Your task to perform on an android device: What is the recent news? Image 0: 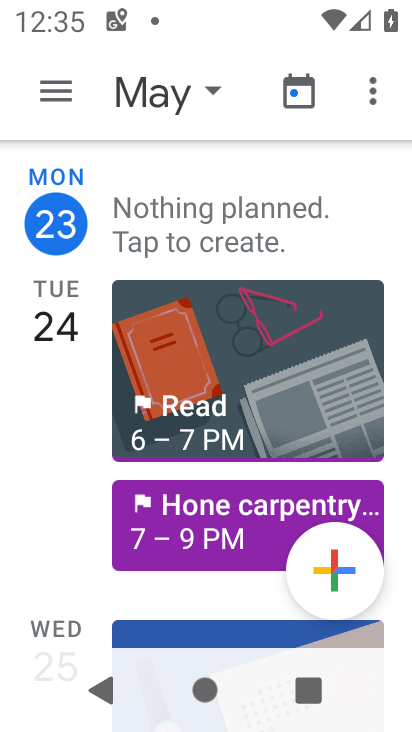
Step 0: press back button
Your task to perform on an android device: What is the recent news? Image 1: 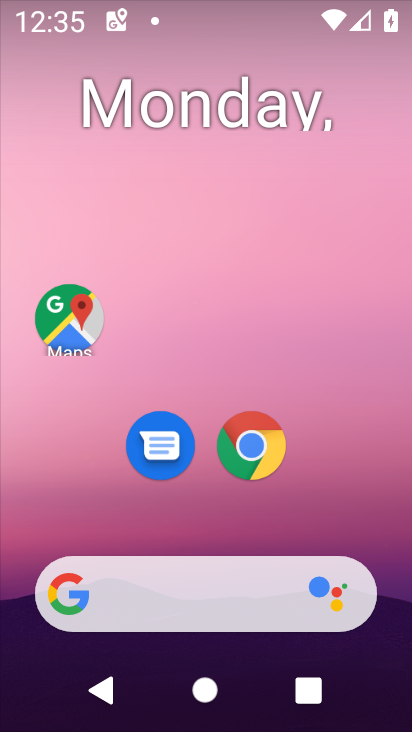
Step 1: drag from (319, 493) to (245, 41)
Your task to perform on an android device: What is the recent news? Image 2: 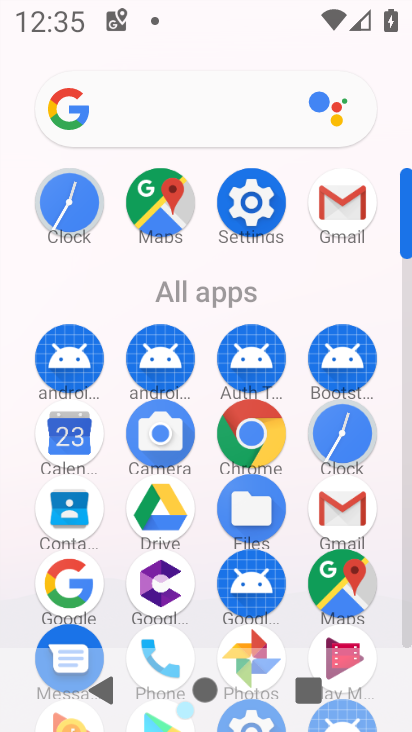
Step 2: drag from (194, 566) to (206, 359)
Your task to perform on an android device: What is the recent news? Image 3: 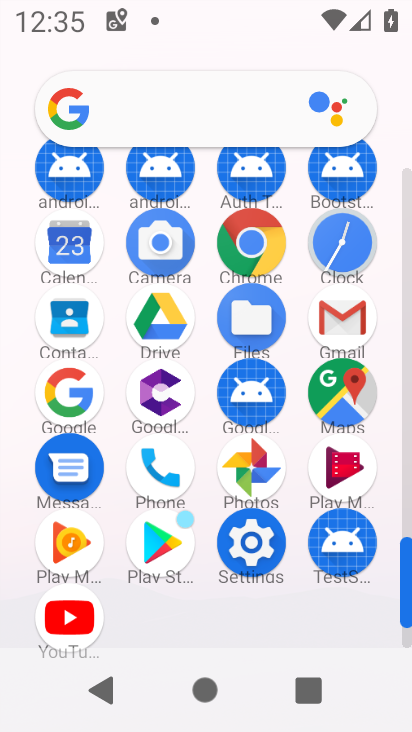
Step 3: click (62, 392)
Your task to perform on an android device: What is the recent news? Image 4: 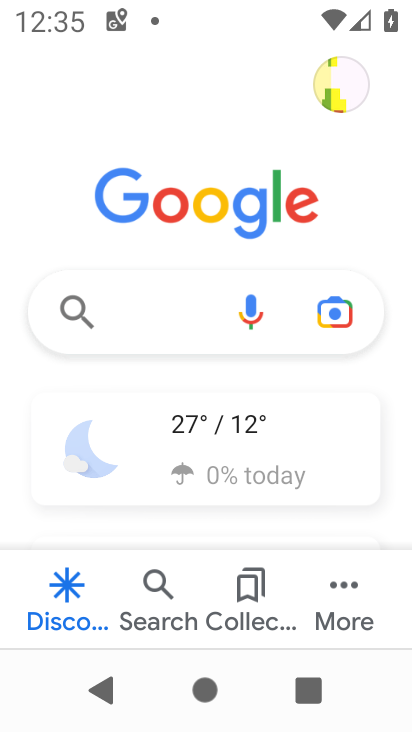
Step 4: click (139, 306)
Your task to perform on an android device: What is the recent news? Image 5: 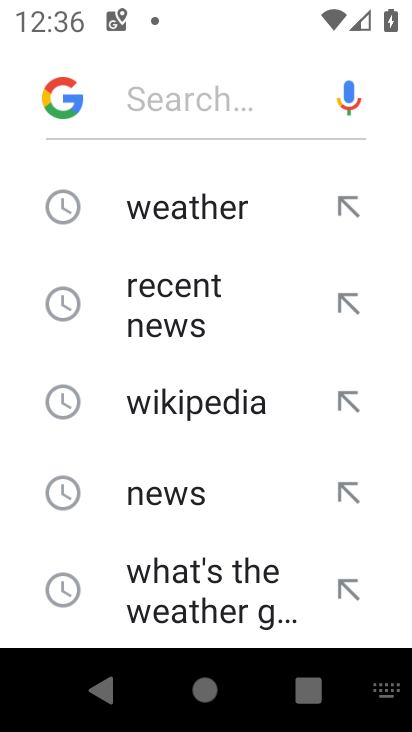
Step 5: type "recent news"
Your task to perform on an android device: What is the recent news? Image 6: 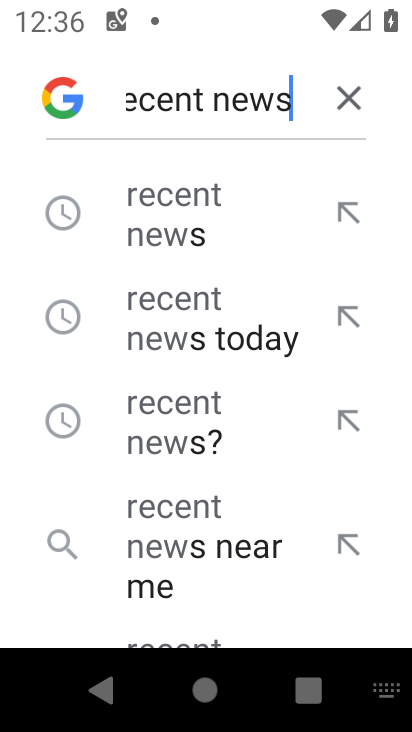
Step 6: type ""
Your task to perform on an android device: What is the recent news? Image 7: 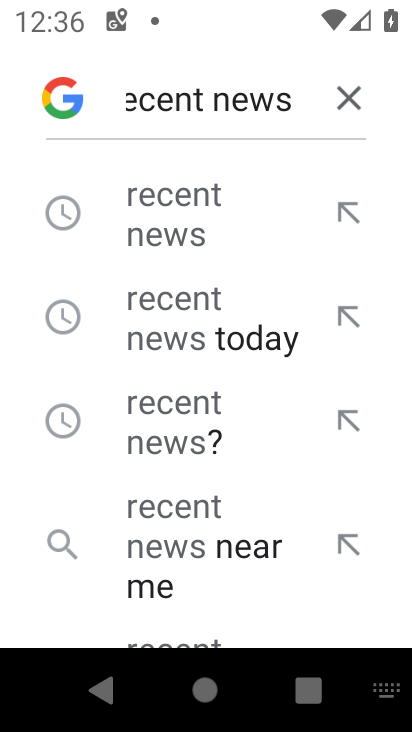
Step 7: click (190, 234)
Your task to perform on an android device: What is the recent news? Image 8: 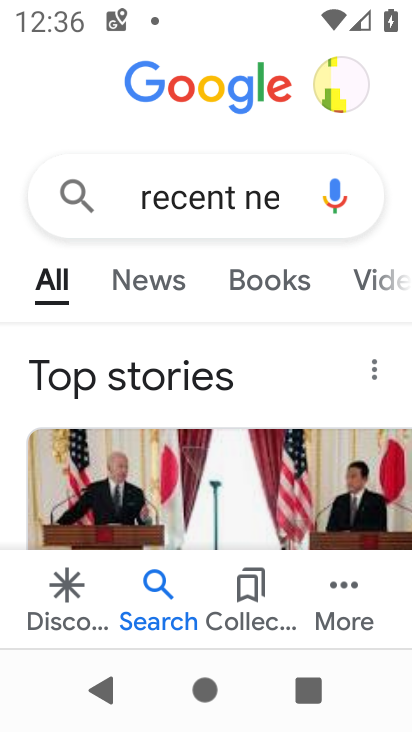
Step 8: task complete